Your task to perform on an android device: Show me popular games on the Play Store Image 0: 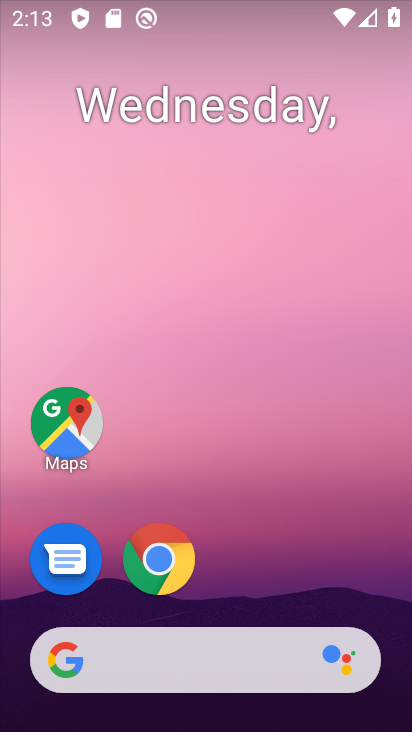
Step 0: drag from (235, 511) to (304, 6)
Your task to perform on an android device: Show me popular games on the Play Store Image 1: 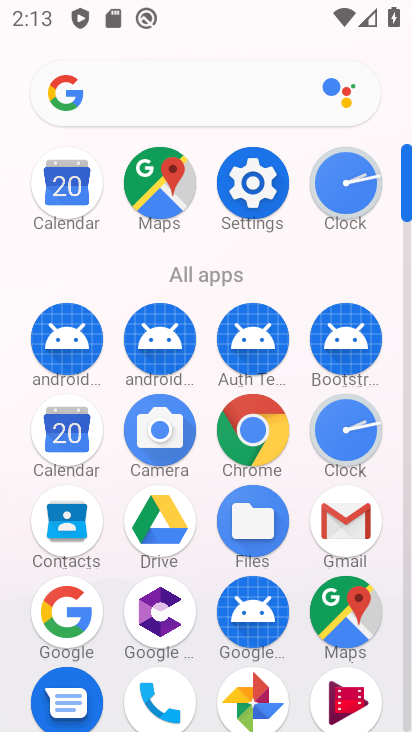
Step 1: drag from (232, 617) to (254, 106)
Your task to perform on an android device: Show me popular games on the Play Store Image 2: 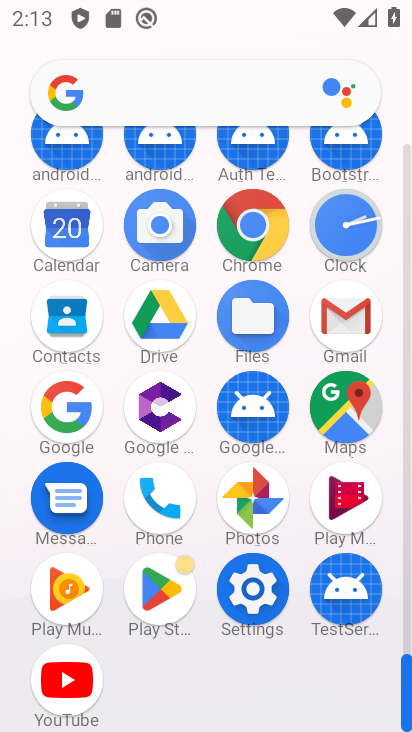
Step 2: click (161, 595)
Your task to perform on an android device: Show me popular games on the Play Store Image 3: 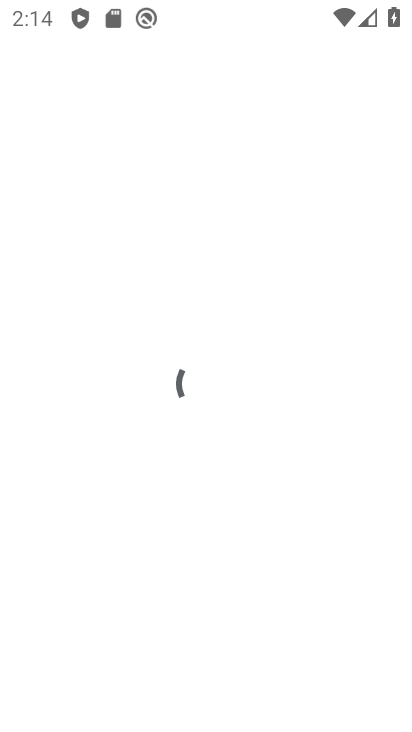
Step 3: press back button
Your task to perform on an android device: Show me popular games on the Play Store Image 4: 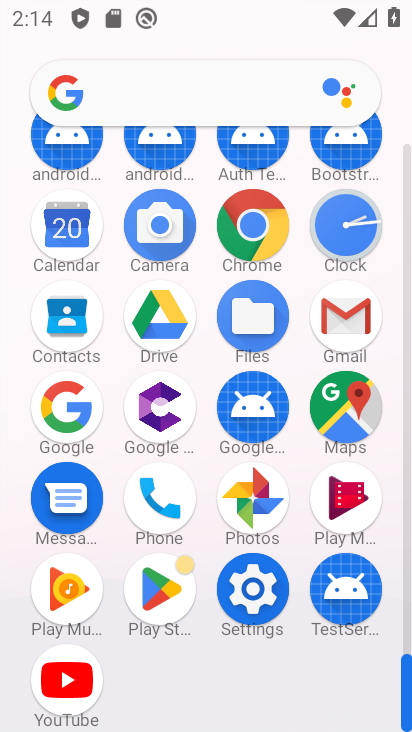
Step 4: click (153, 596)
Your task to perform on an android device: Show me popular games on the Play Store Image 5: 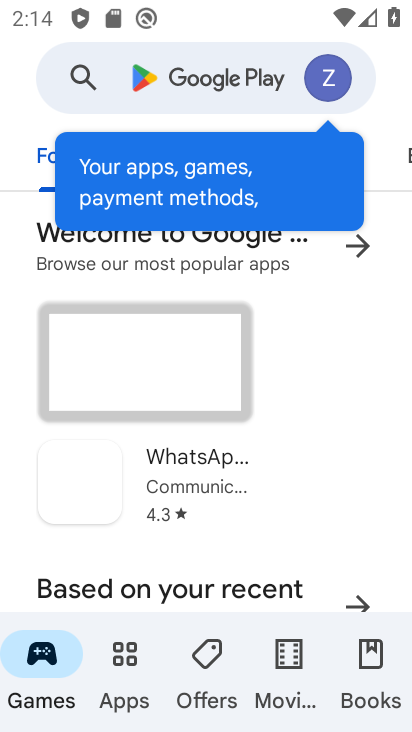
Step 5: drag from (136, 577) to (232, 174)
Your task to perform on an android device: Show me popular games on the Play Store Image 6: 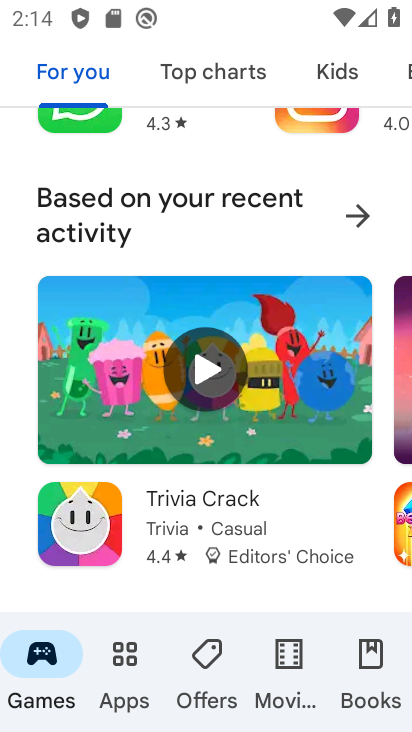
Step 6: drag from (151, 542) to (267, 101)
Your task to perform on an android device: Show me popular games on the Play Store Image 7: 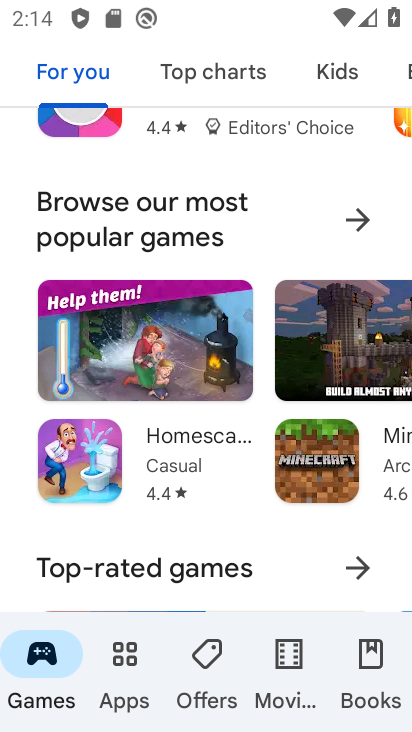
Step 7: click (361, 220)
Your task to perform on an android device: Show me popular games on the Play Store Image 8: 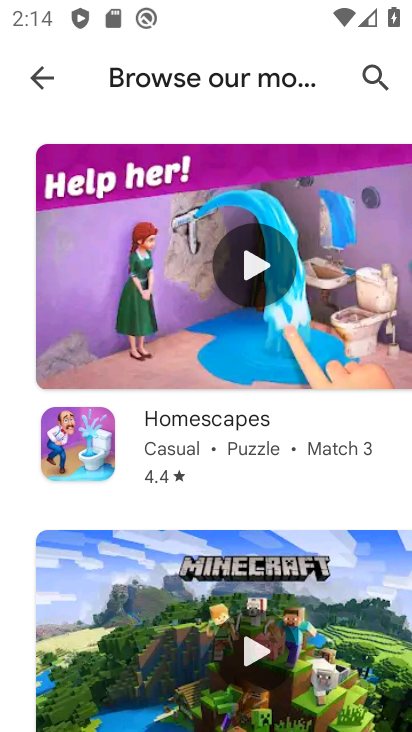
Step 8: drag from (208, 665) to (311, 98)
Your task to perform on an android device: Show me popular games on the Play Store Image 9: 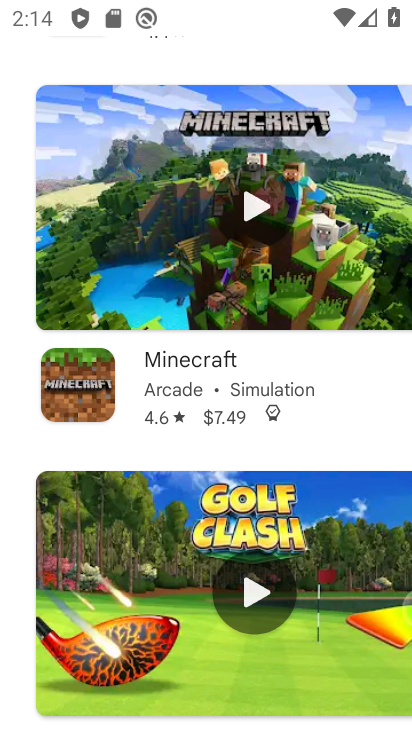
Step 9: drag from (155, 651) to (229, 88)
Your task to perform on an android device: Show me popular games on the Play Store Image 10: 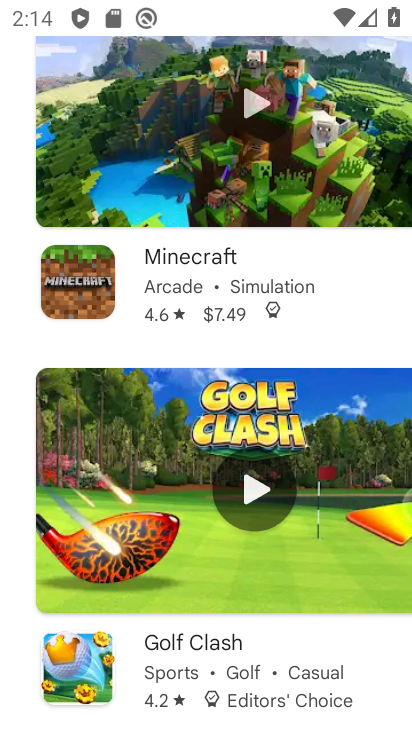
Step 10: drag from (172, 635) to (264, 106)
Your task to perform on an android device: Show me popular games on the Play Store Image 11: 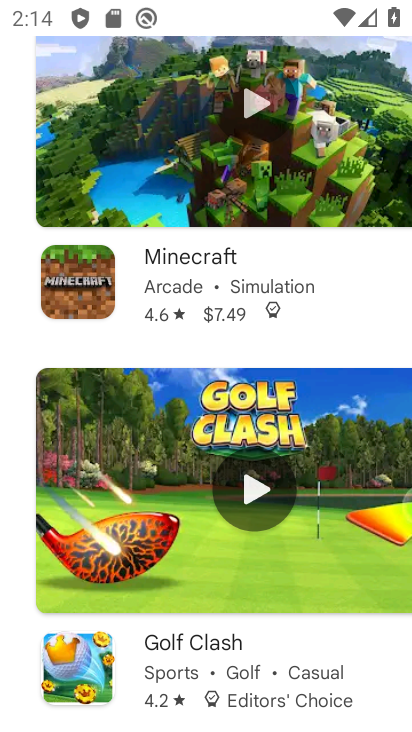
Step 11: drag from (206, 556) to (283, 73)
Your task to perform on an android device: Show me popular games on the Play Store Image 12: 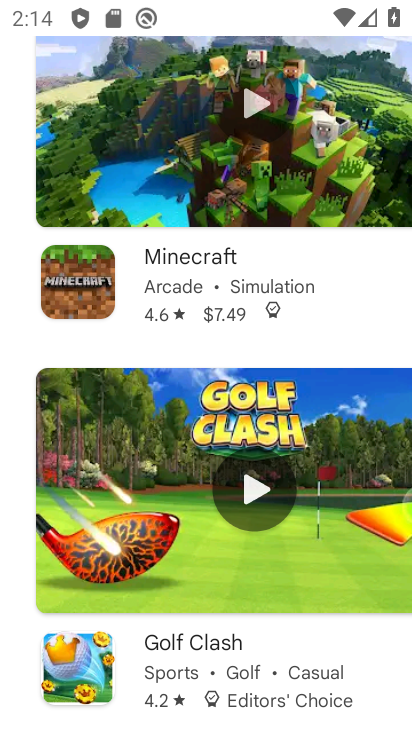
Step 12: drag from (260, 413) to (329, 47)
Your task to perform on an android device: Show me popular games on the Play Store Image 13: 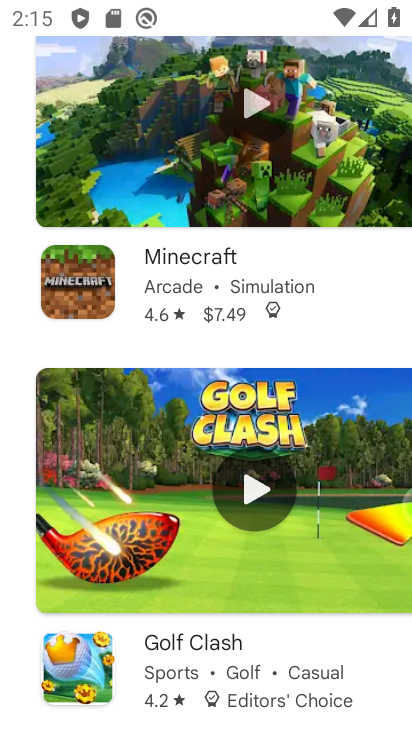
Step 13: click (306, 121)
Your task to perform on an android device: Show me popular games on the Play Store Image 14: 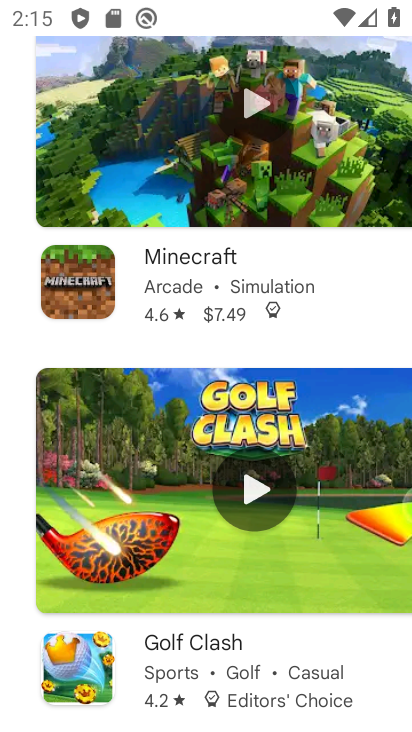
Step 14: drag from (245, 616) to (305, 38)
Your task to perform on an android device: Show me popular games on the Play Store Image 15: 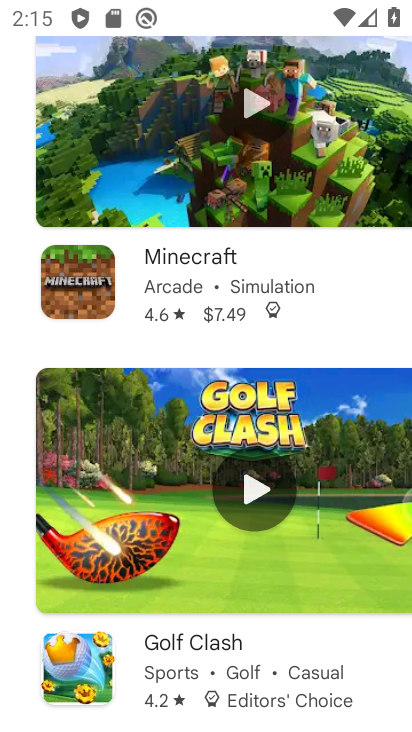
Step 15: drag from (189, 632) to (306, 62)
Your task to perform on an android device: Show me popular games on the Play Store Image 16: 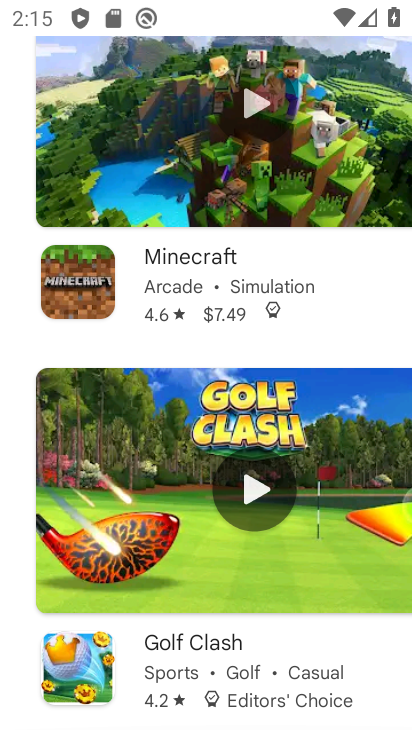
Step 16: drag from (269, 214) to (318, 4)
Your task to perform on an android device: Show me popular games on the Play Store Image 17: 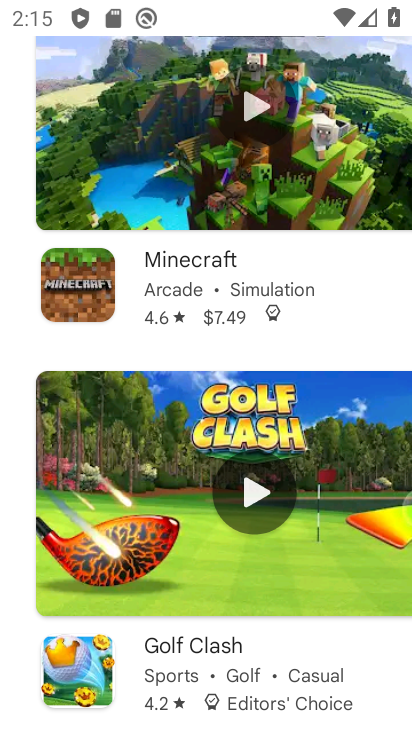
Step 17: drag from (270, 591) to (325, 19)
Your task to perform on an android device: Show me popular games on the Play Store Image 18: 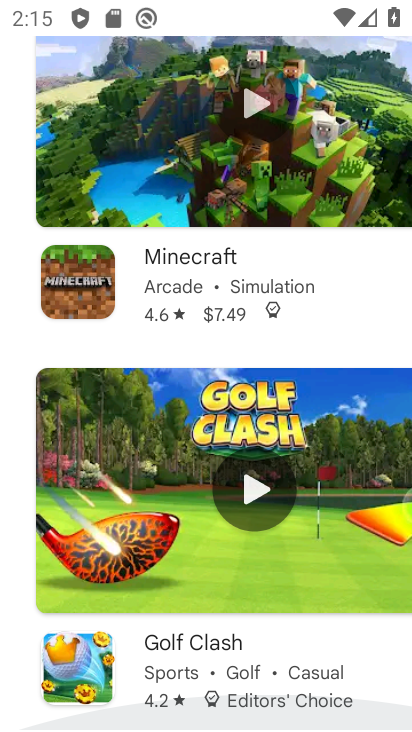
Step 18: drag from (297, 237) to (241, 701)
Your task to perform on an android device: Show me popular games on the Play Store Image 19: 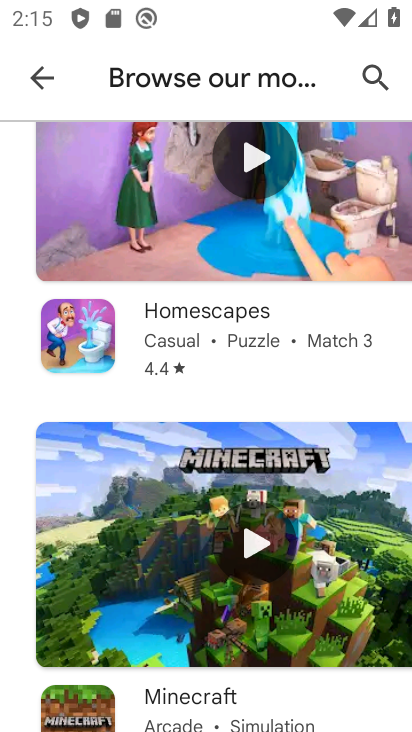
Step 19: click (43, 76)
Your task to perform on an android device: Show me popular games on the Play Store Image 20: 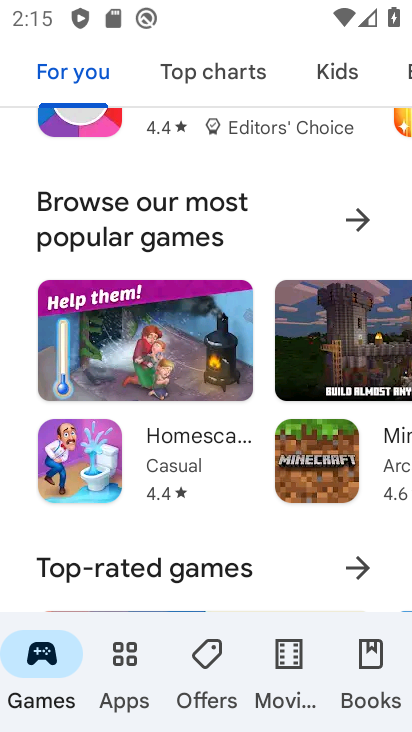
Step 20: click (353, 220)
Your task to perform on an android device: Show me popular games on the Play Store Image 21: 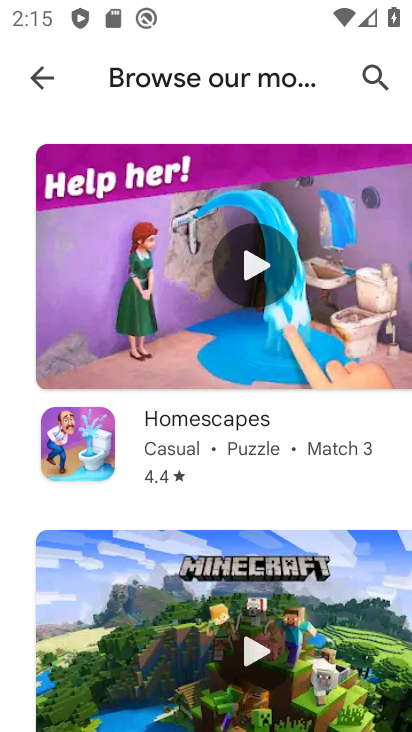
Step 21: task complete